Your task to perform on an android device: toggle improve location accuracy Image 0: 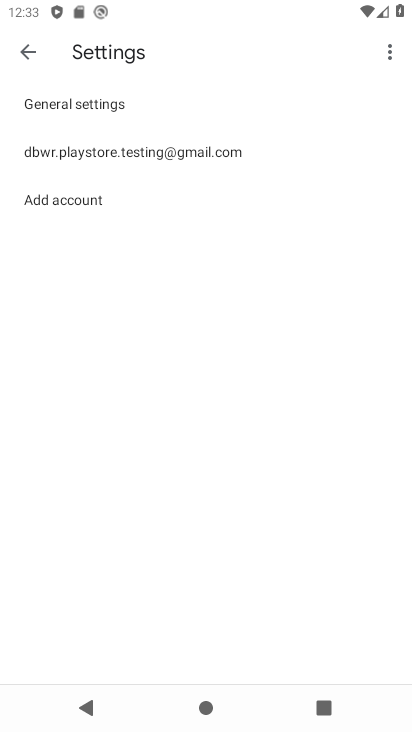
Step 0: press home button
Your task to perform on an android device: toggle improve location accuracy Image 1: 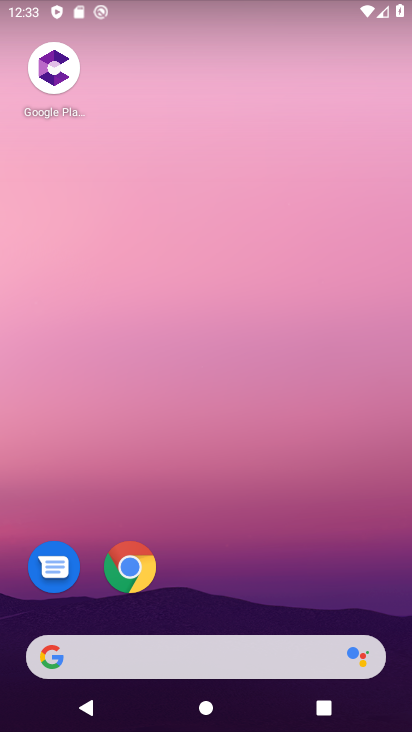
Step 1: drag from (291, 555) to (312, 26)
Your task to perform on an android device: toggle improve location accuracy Image 2: 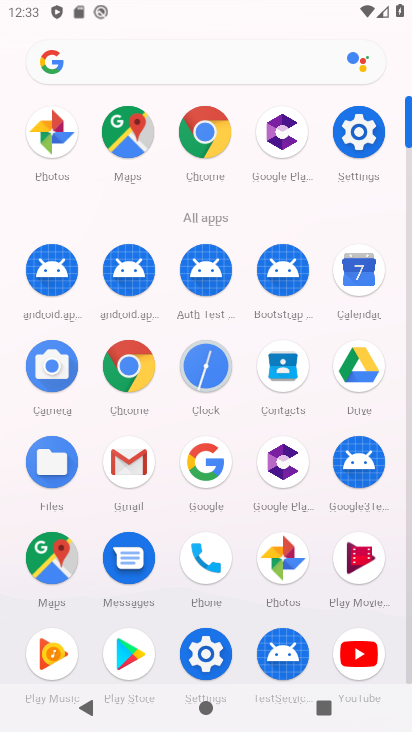
Step 2: click (350, 119)
Your task to perform on an android device: toggle improve location accuracy Image 3: 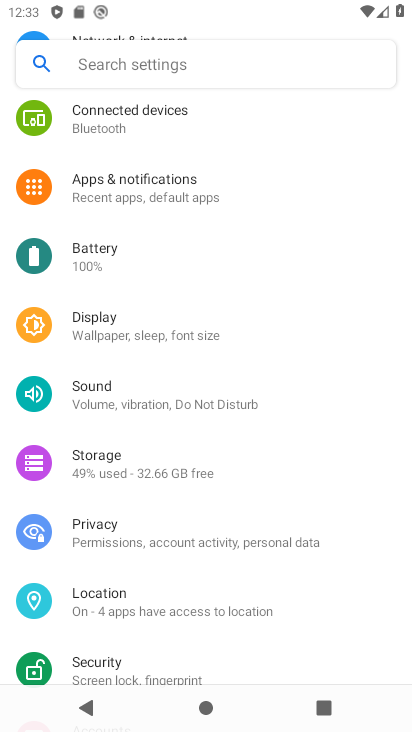
Step 3: click (103, 618)
Your task to perform on an android device: toggle improve location accuracy Image 4: 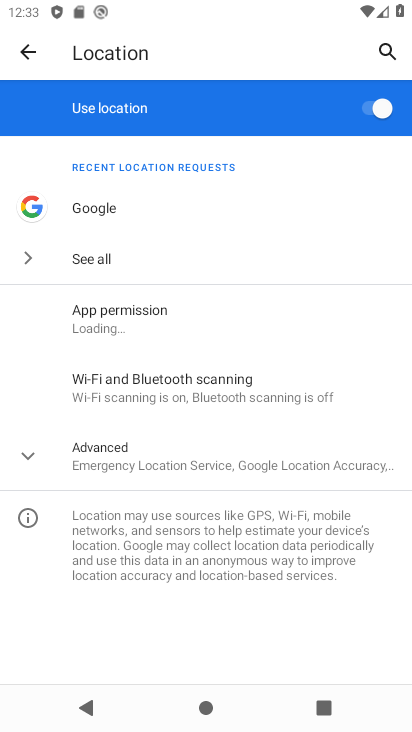
Step 4: click (179, 467)
Your task to perform on an android device: toggle improve location accuracy Image 5: 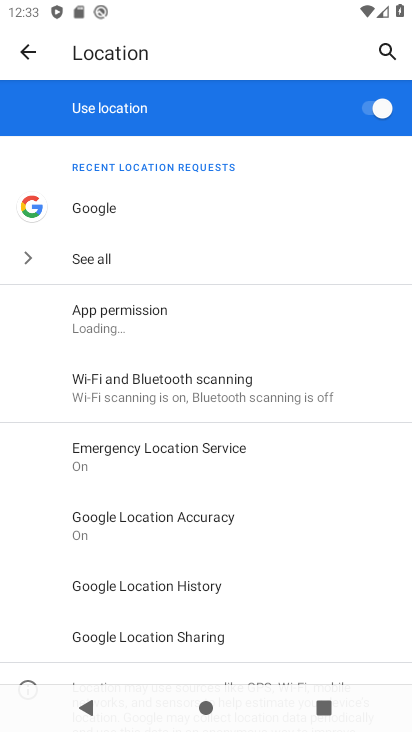
Step 5: click (169, 524)
Your task to perform on an android device: toggle improve location accuracy Image 6: 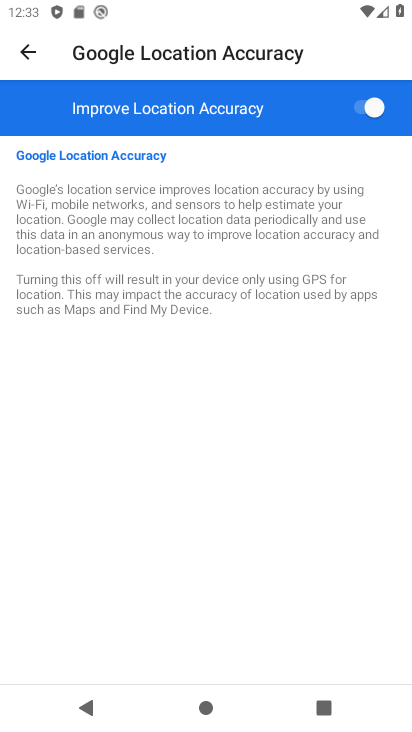
Step 6: click (378, 106)
Your task to perform on an android device: toggle improve location accuracy Image 7: 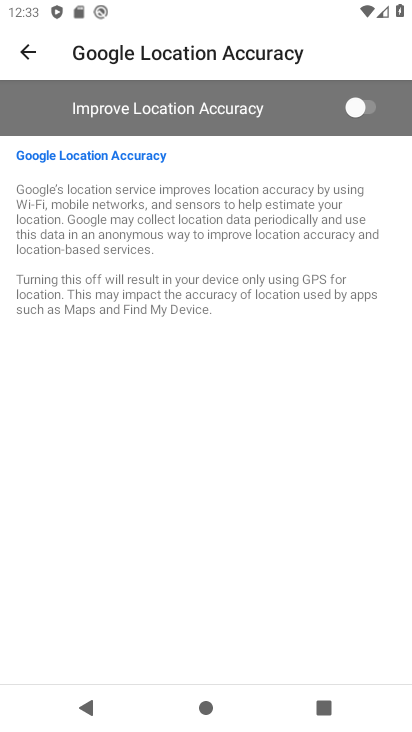
Step 7: task complete